Your task to perform on an android device: open the mobile data screen to see how much data has been used Image 0: 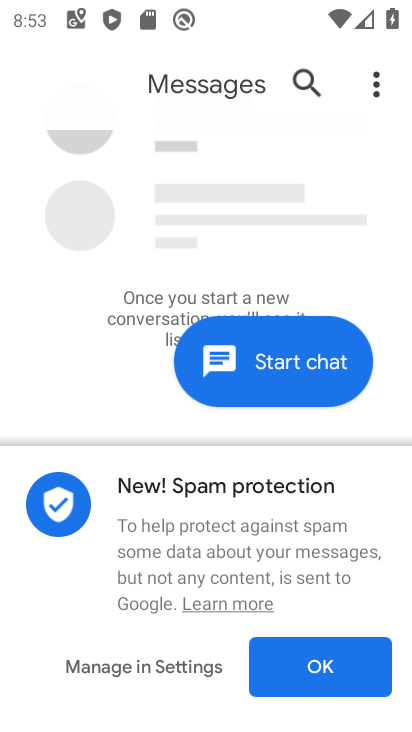
Step 0: press home button
Your task to perform on an android device: open the mobile data screen to see how much data has been used Image 1: 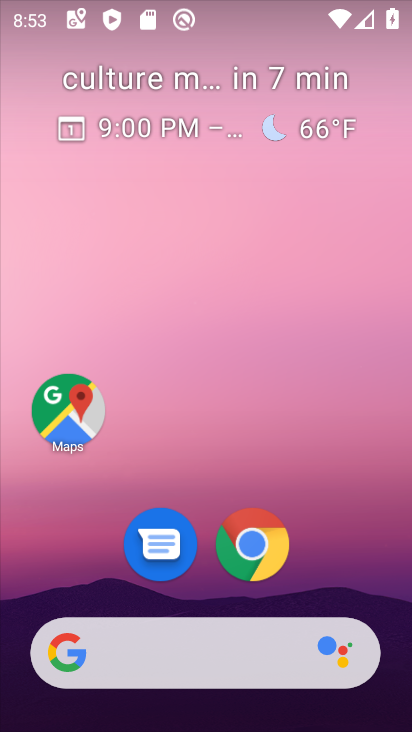
Step 1: drag from (281, 568) to (282, 87)
Your task to perform on an android device: open the mobile data screen to see how much data has been used Image 2: 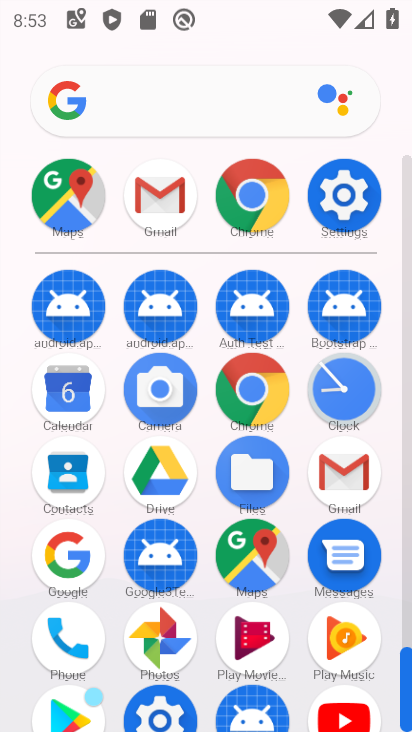
Step 2: click (355, 195)
Your task to perform on an android device: open the mobile data screen to see how much data has been used Image 3: 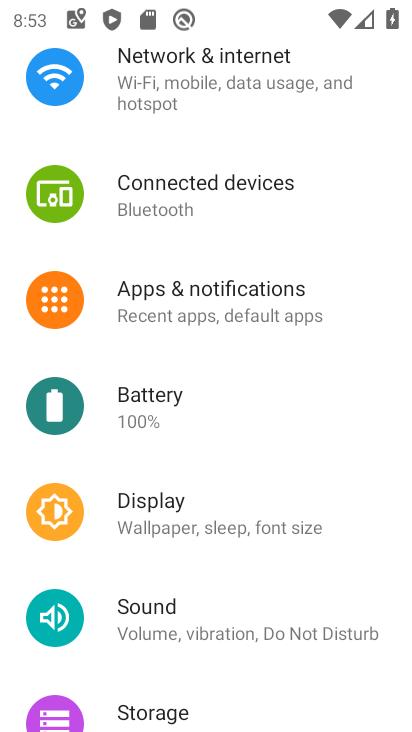
Step 3: click (210, 111)
Your task to perform on an android device: open the mobile data screen to see how much data has been used Image 4: 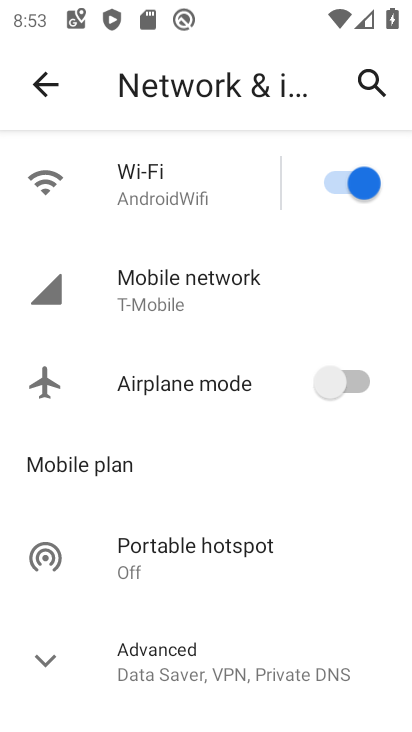
Step 4: click (174, 319)
Your task to perform on an android device: open the mobile data screen to see how much data has been used Image 5: 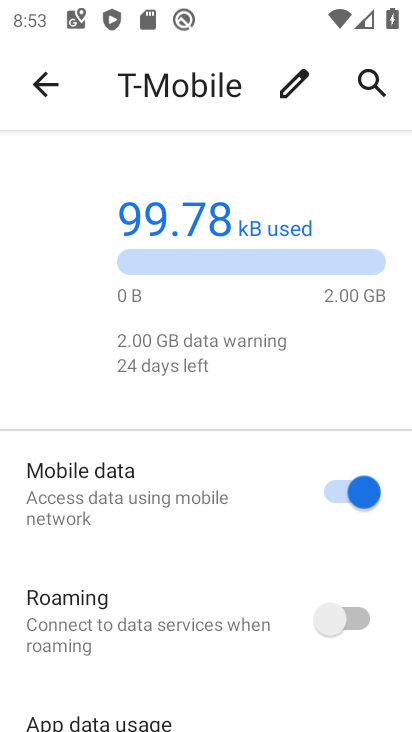
Step 5: drag from (124, 518) to (176, 174)
Your task to perform on an android device: open the mobile data screen to see how much data has been used Image 6: 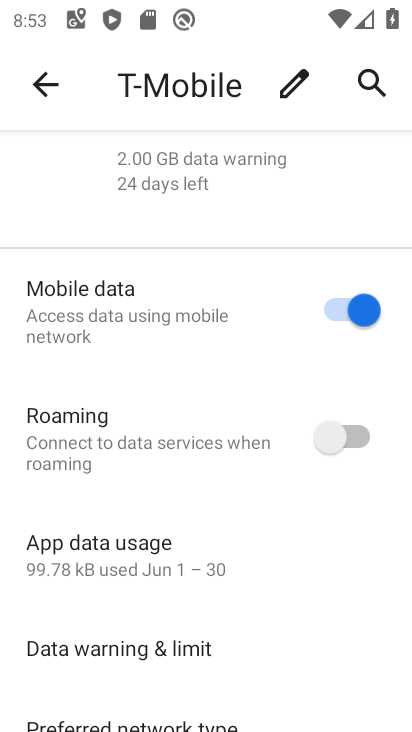
Step 6: click (122, 559)
Your task to perform on an android device: open the mobile data screen to see how much data has been used Image 7: 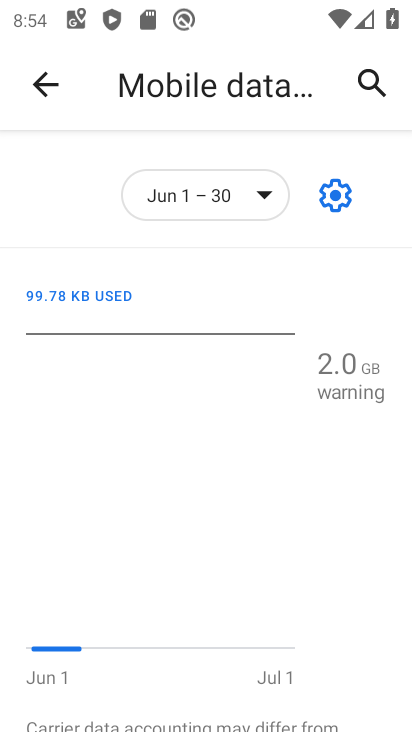
Step 7: task complete